Your task to perform on an android device: allow notifications from all sites in the chrome app Image 0: 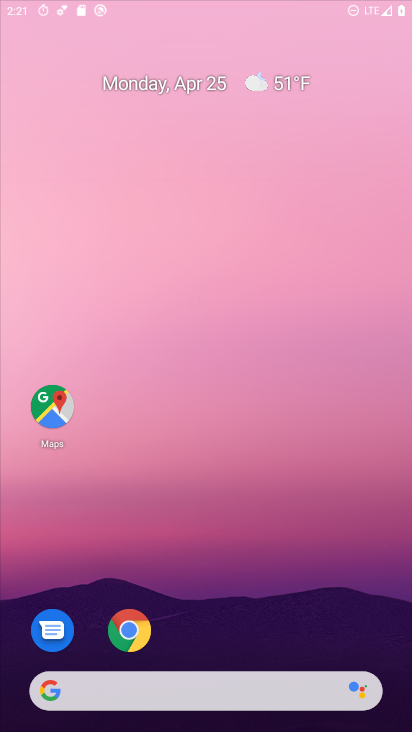
Step 0: click (284, 152)
Your task to perform on an android device: allow notifications from all sites in the chrome app Image 1: 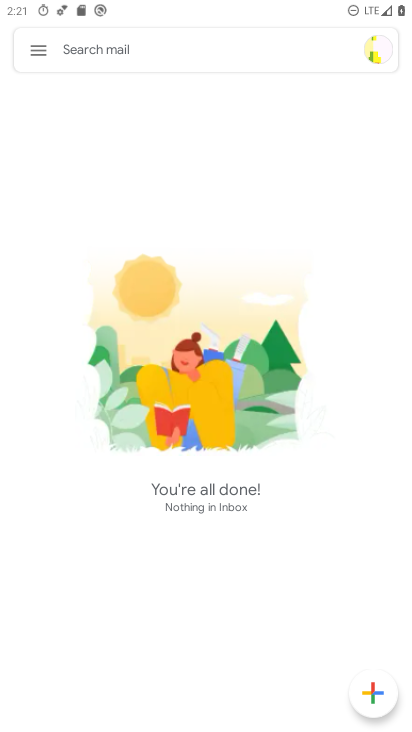
Step 1: drag from (204, 649) to (236, 122)
Your task to perform on an android device: allow notifications from all sites in the chrome app Image 2: 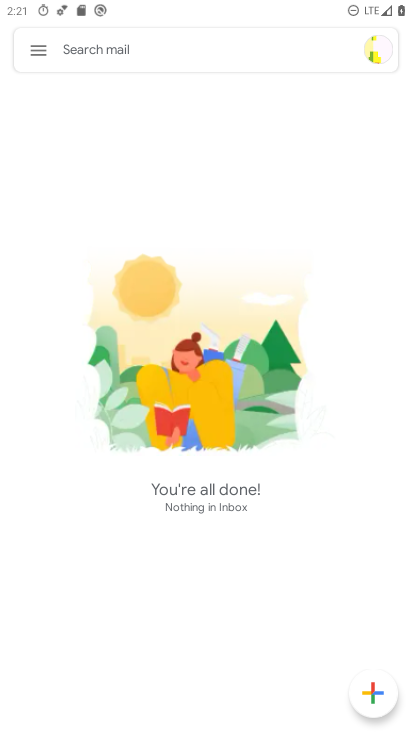
Step 2: press home button
Your task to perform on an android device: allow notifications from all sites in the chrome app Image 3: 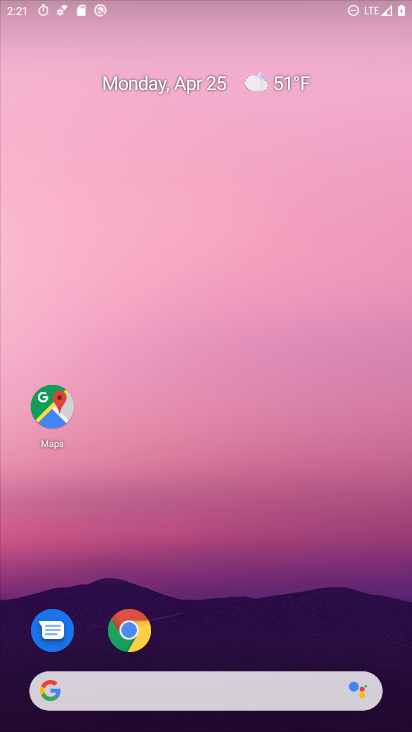
Step 3: drag from (253, 447) to (288, 10)
Your task to perform on an android device: allow notifications from all sites in the chrome app Image 4: 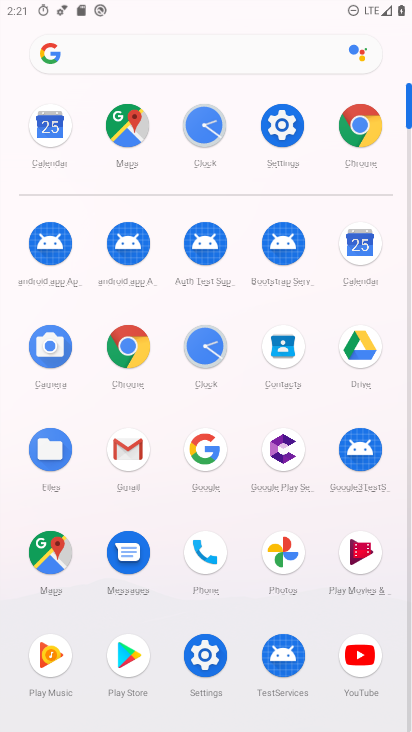
Step 4: click (121, 357)
Your task to perform on an android device: allow notifications from all sites in the chrome app Image 5: 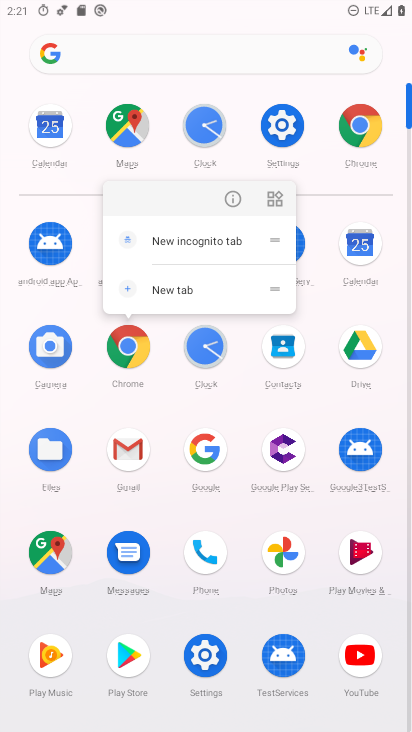
Step 5: click (234, 203)
Your task to perform on an android device: allow notifications from all sites in the chrome app Image 6: 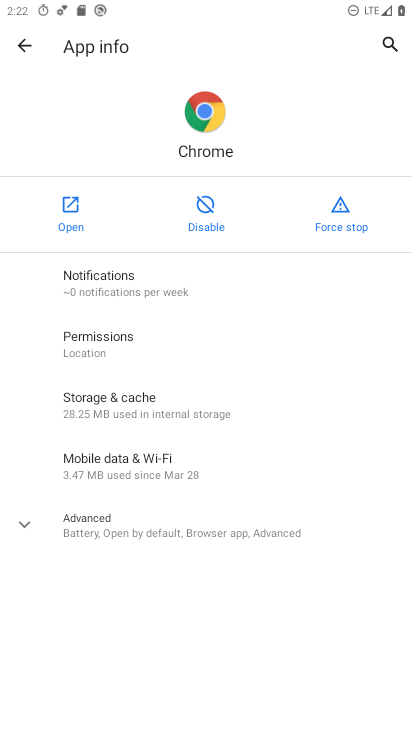
Step 6: click (74, 199)
Your task to perform on an android device: allow notifications from all sites in the chrome app Image 7: 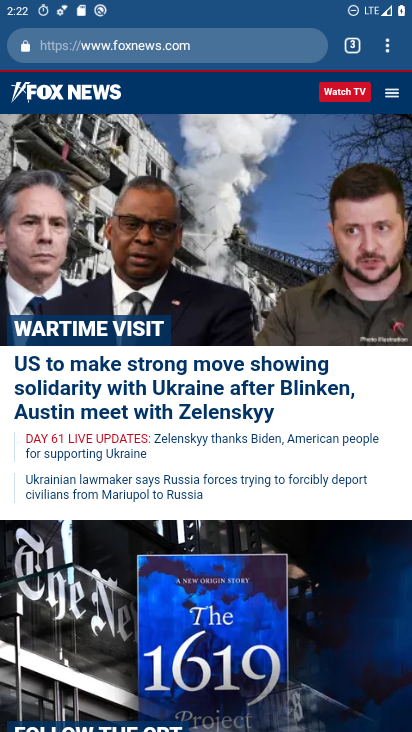
Step 7: drag from (375, 59) to (262, 599)
Your task to perform on an android device: allow notifications from all sites in the chrome app Image 8: 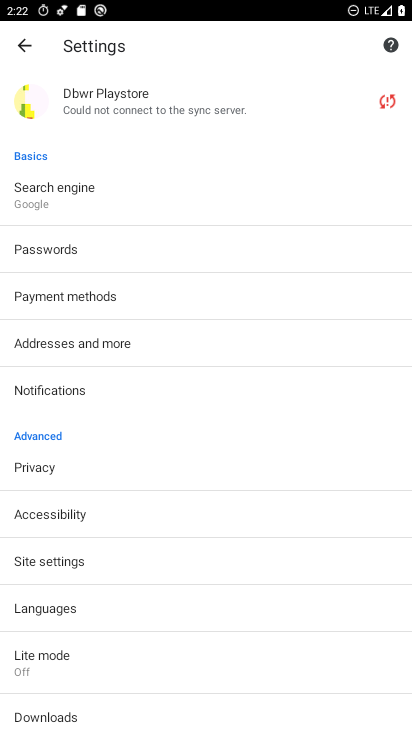
Step 8: click (99, 383)
Your task to perform on an android device: allow notifications from all sites in the chrome app Image 9: 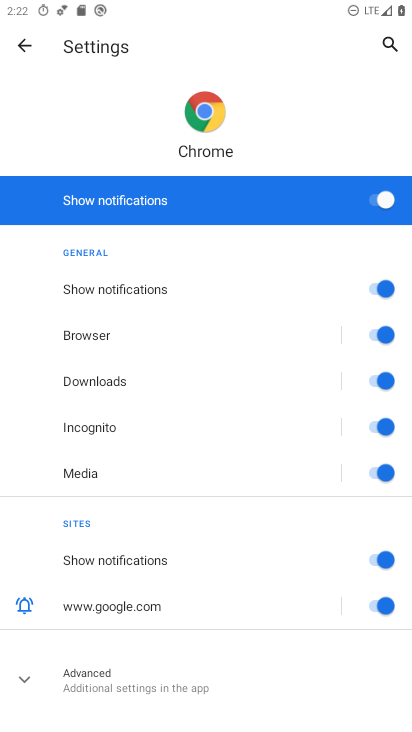
Step 9: task complete